Your task to perform on an android device: turn on sleep mode Image 0: 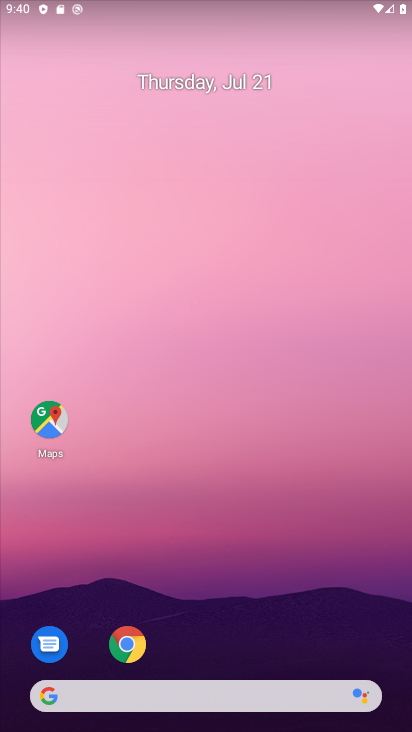
Step 0: drag from (232, 628) to (270, 0)
Your task to perform on an android device: turn on sleep mode Image 1: 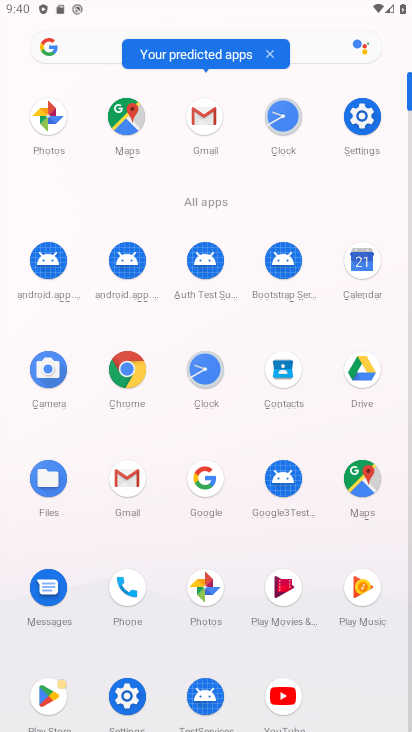
Step 1: click (361, 133)
Your task to perform on an android device: turn on sleep mode Image 2: 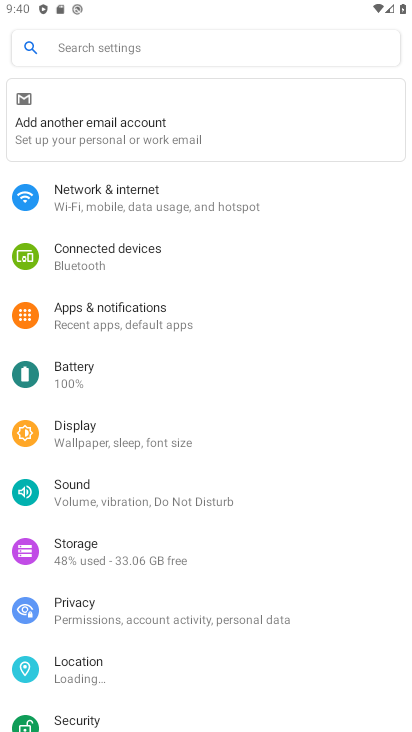
Step 2: click (138, 51)
Your task to perform on an android device: turn on sleep mode Image 3: 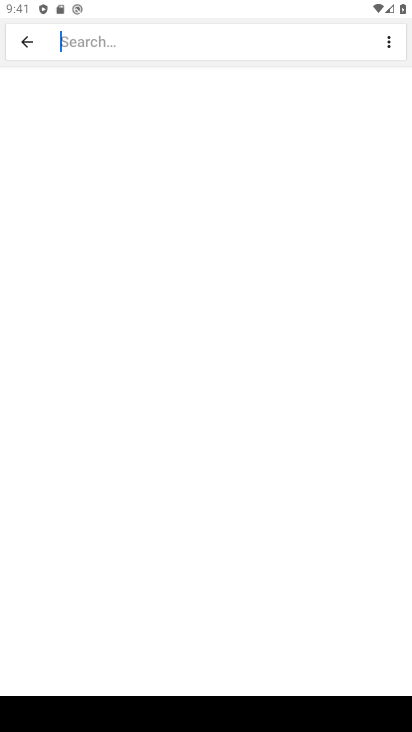
Step 3: type "sleep mode"
Your task to perform on an android device: turn on sleep mode Image 4: 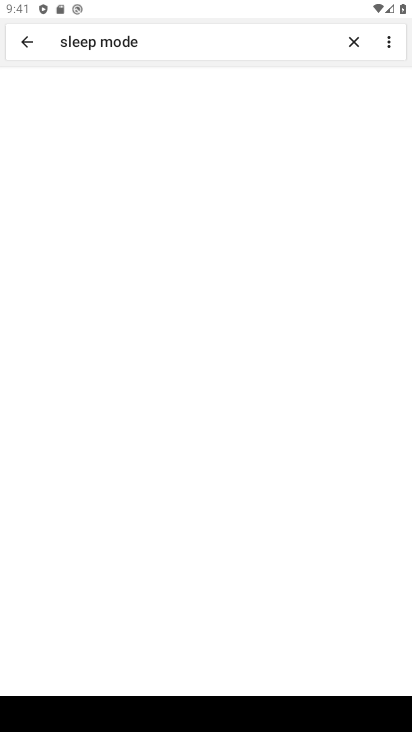
Step 4: click (223, 192)
Your task to perform on an android device: turn on sleep mode Image 5: 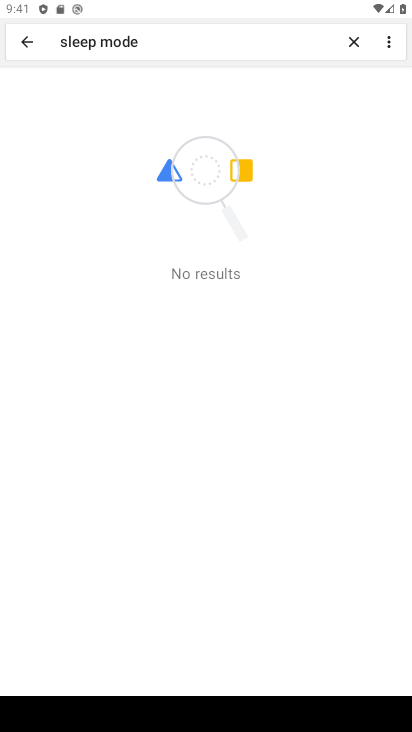
Step 5: task complete